Your task to perform on an android device: Go to accessibility settings Image 0: 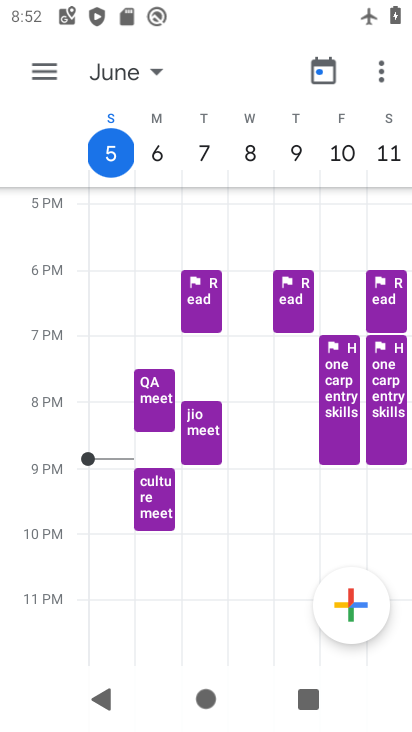
Step 0: press home button
Your task to perform on an android device: Go to accessibility settings Image 1: 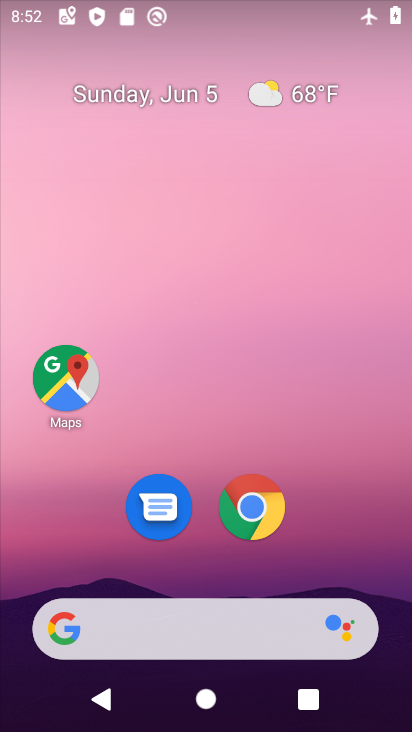
Step 1: drag from (243, 570) to (289, 28)
Your task to perform on an android device: Go to accessibility settings Image 2: 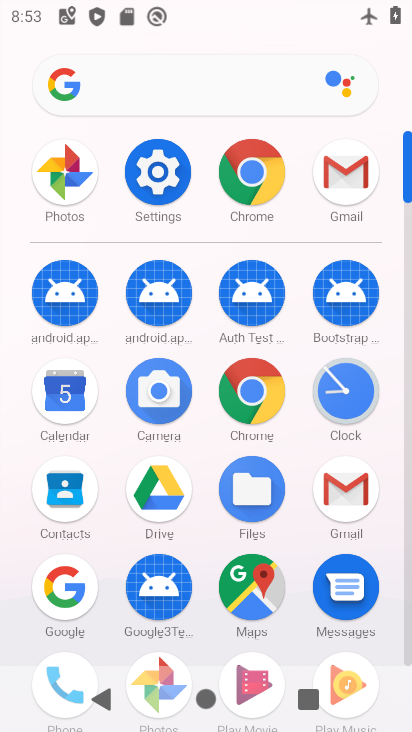
Step 2: click (158, 191)
Your task to perform on an android device: Go to accessibility settings Image 3: 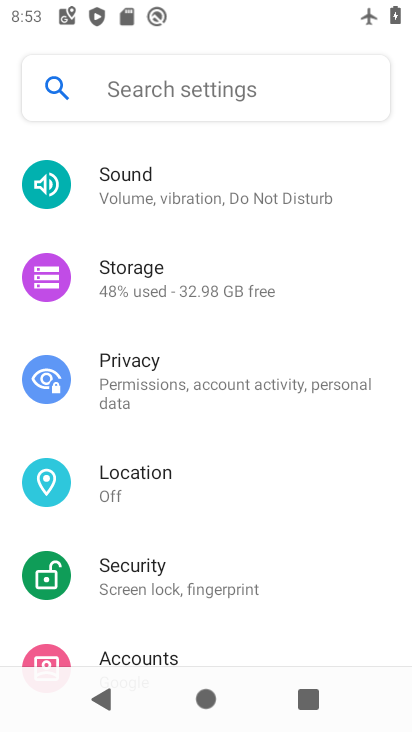
Step 3: drag from (194, 551) to (259, 79)
Your task to perform on an android device: Go to accessibility settings Image 4: 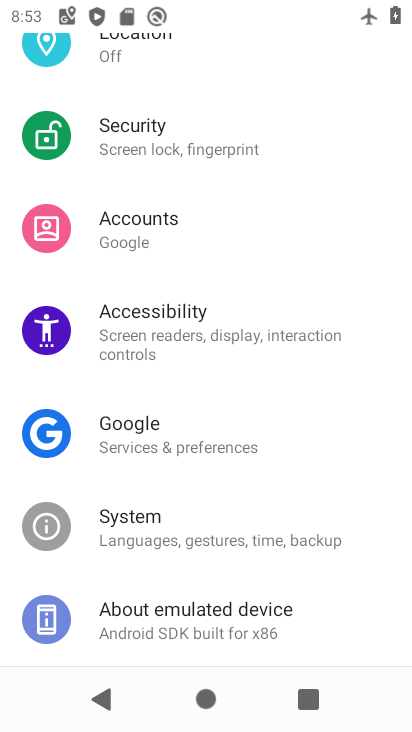
Step 4: click (183, 340)
Your task to perform on an android device: Go to accessibility settings Image 5: 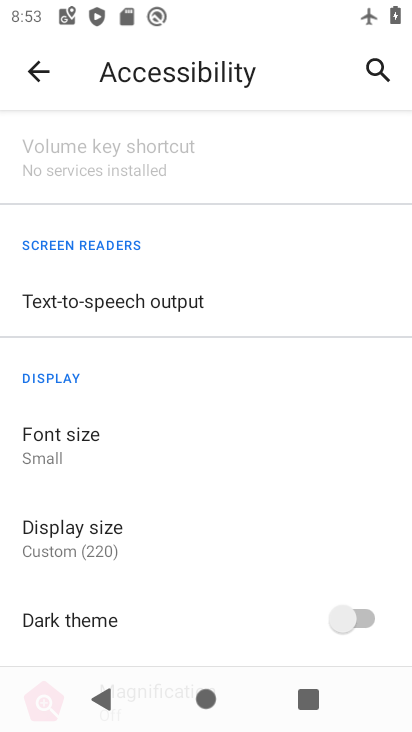
Step 5: task complete